Your task to perform on an android device: turn on the 24-hour format for clock Image 0: 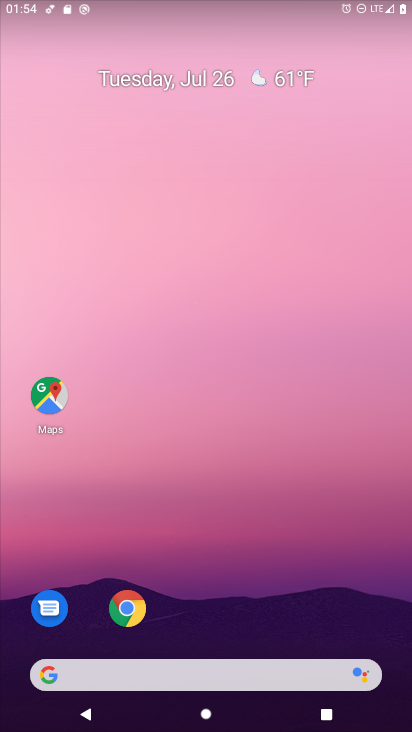
Step 0: drag from (30, 499) to (254, 55)
Your task to perform on an android device: turn on the 24-hour format for clock Image 1: 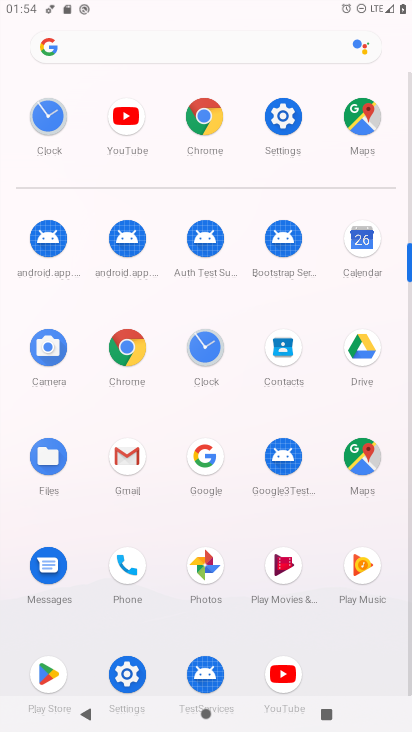
Step 1: click (204, 357)
Your task to perform on an android device: turn on the 24-hour format for clock Image 2: 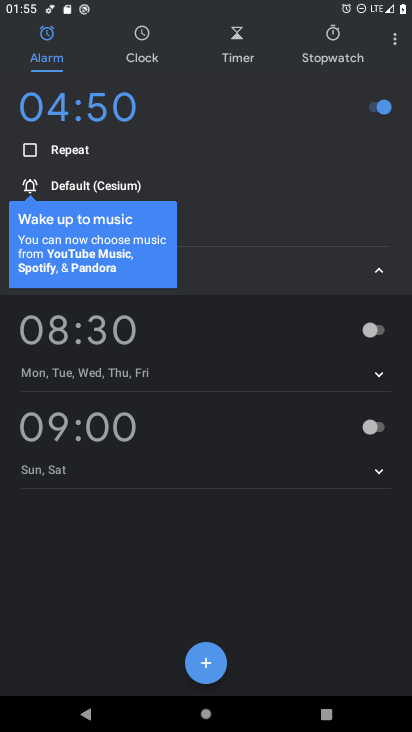
Step 2: click (401, 43)
Your task to perform on an android device: turn on the 24-hour format for clock Image 3: 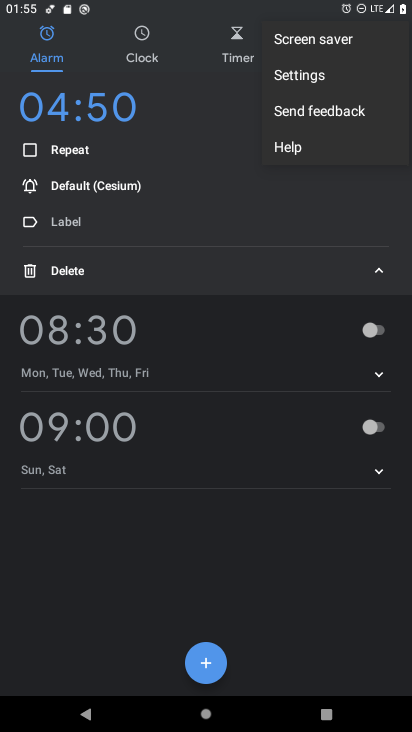
Step 3: click (343, 79)
Your task to perform on an android device: turn on the 24-hour format for clock Image 4: 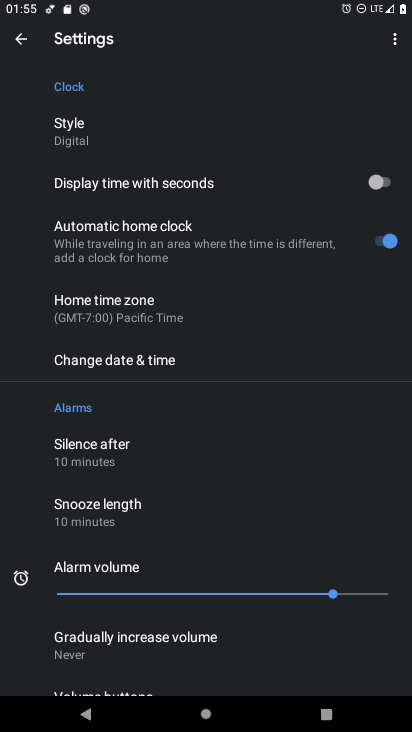
Step 4: click (99, 357)
Your task to perform on an android device: turn on the 24-hour format for clock Image 5: 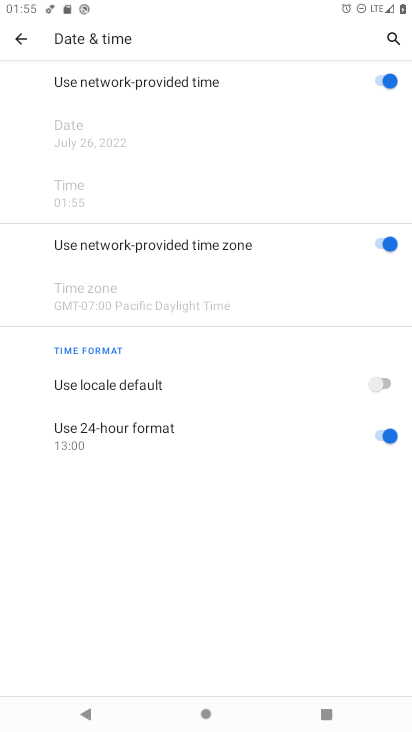
Step 5: task complete